Your task to perform on an android device: make emails show in primary in the gmail app Image 0: 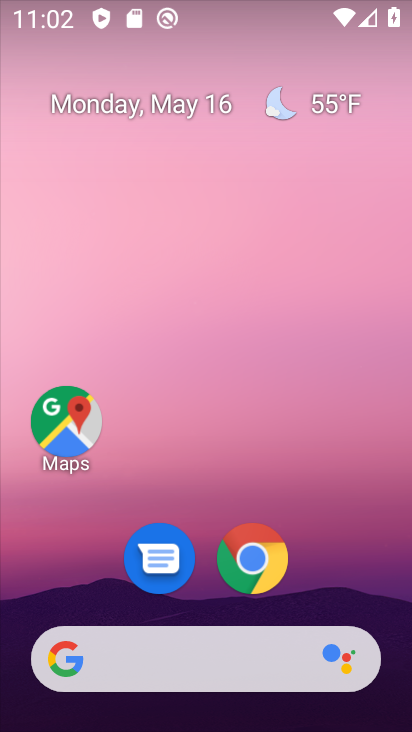
Step 0: drag from (349, 565) to (328, 66)
Your task to perform on an android device: make emails show in primary in the gmail app Image 1: 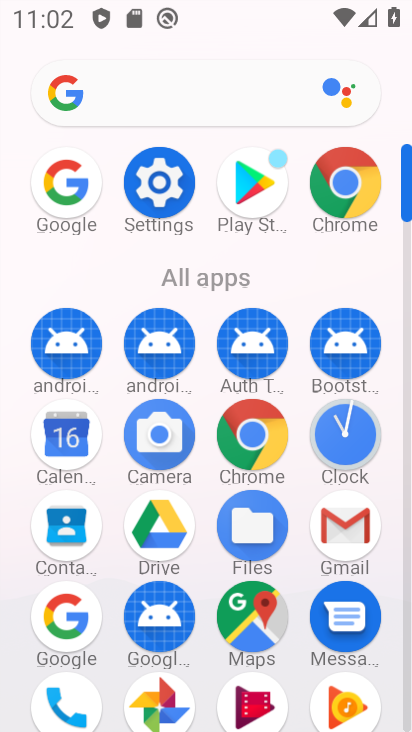
Step 1: click (334, 522)
Your task to perform on an android device: make emails show in primary in the gmail app Image 2: 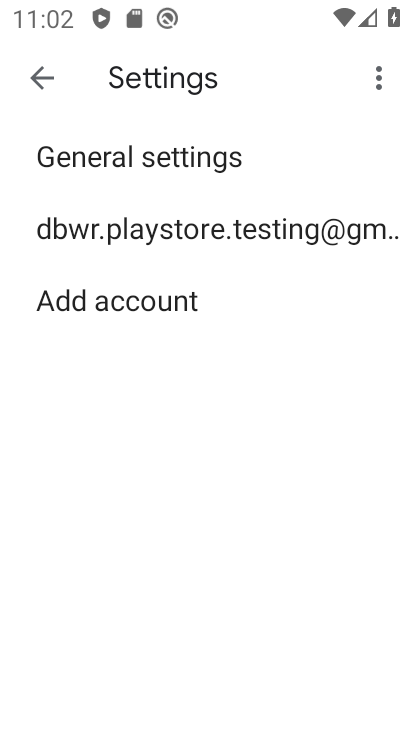
Step 2: click (147, 231)
Your task to perform on an android device: make emails show in primary in the gmail app Image 3: 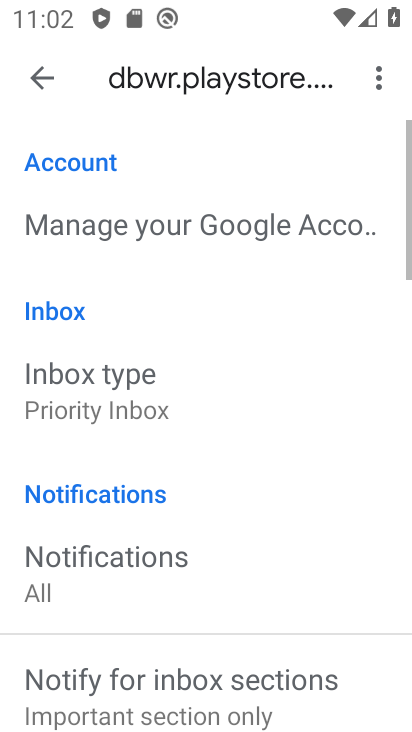
Step 3: click (121, 386)
Your task to perform on an android device: make emails show in primary in the gmail app Image 4: 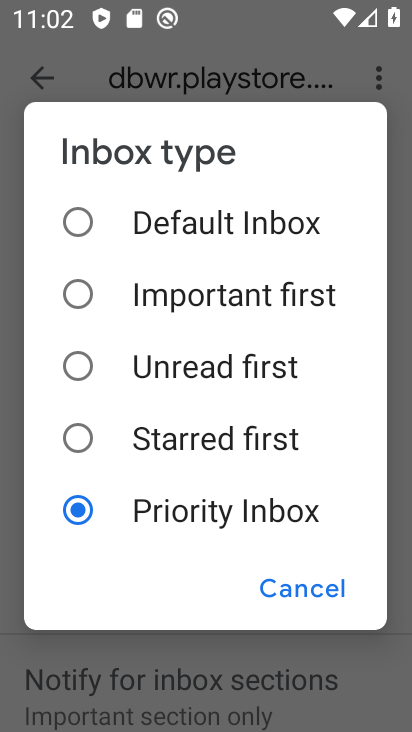
Step 4: click (80, 224)
Your task to perform on an android device: make emails show in primary in the gmail app Image 5: 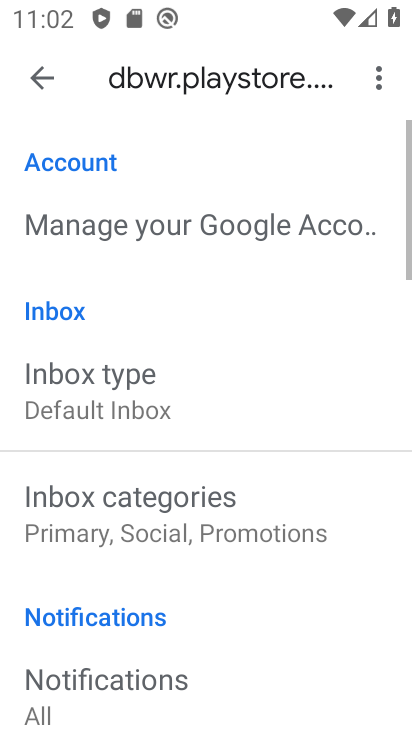
Step 5: click (117, 531)
Your task to perform on an android device: make emails show in primary in the gmail app Image 6: 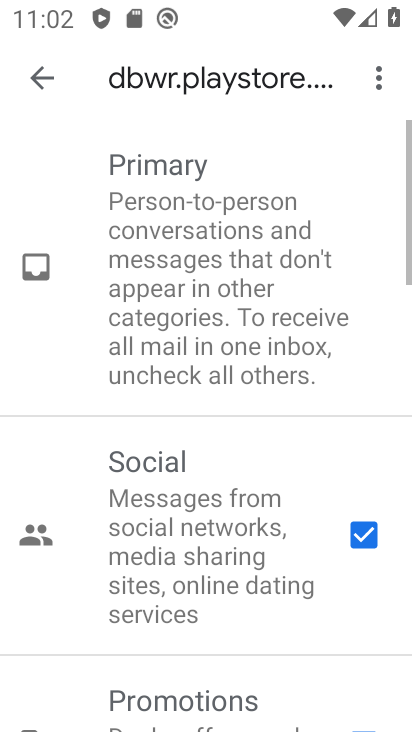
Step 6: click (354, 546)
Your task to perform on an android device: make emails show in primary in the gmail app Image 7: 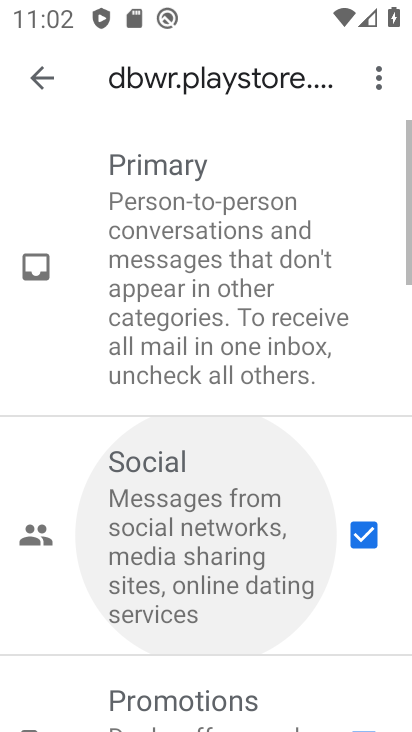
Step 7: drag from (295, 556) to (307, 199)
Your task to perform on an android device: make emails show in primary in the gmail app Image 8: 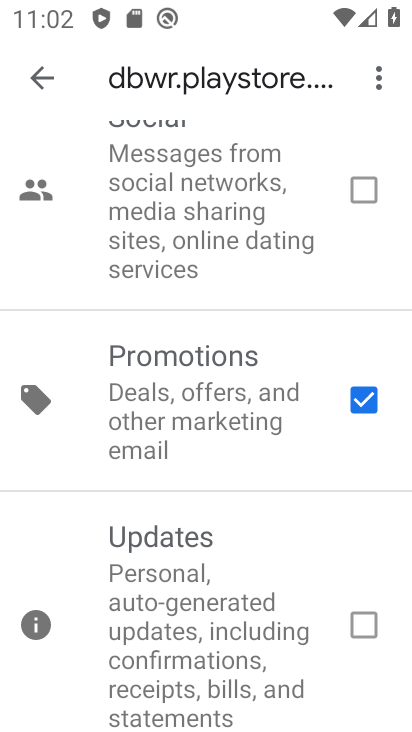
Step 8: click (368, 395)
Your task to perform on an android device: make emails show in primary in the gmail app Image 9: 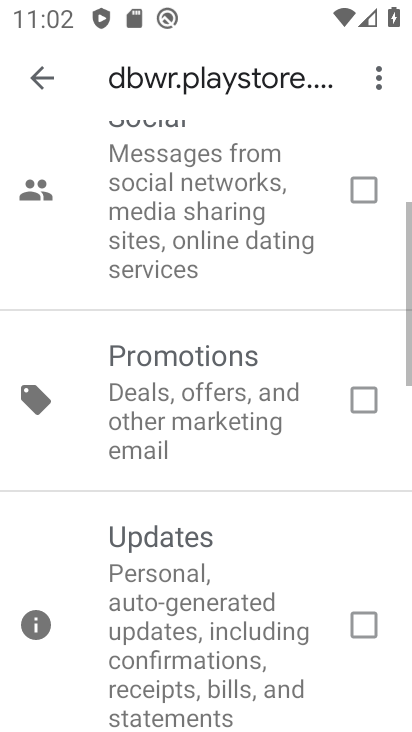
Step 9: task complete